Your task to perform on an android device: Go to Google maps Image 0: 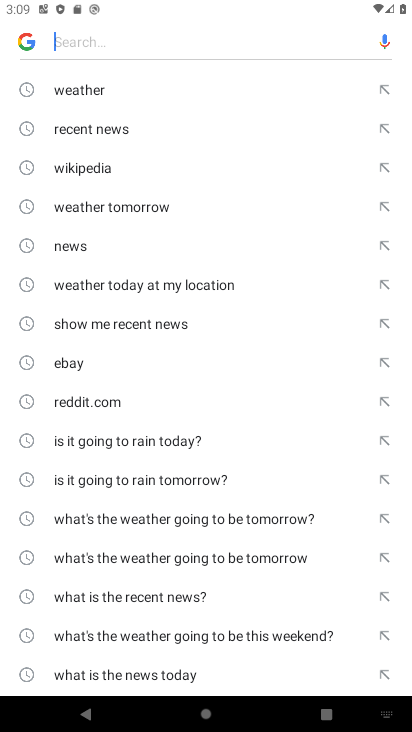
Step 0: press home button
Your task to perform on an android device: Go to Google maps Image 1: 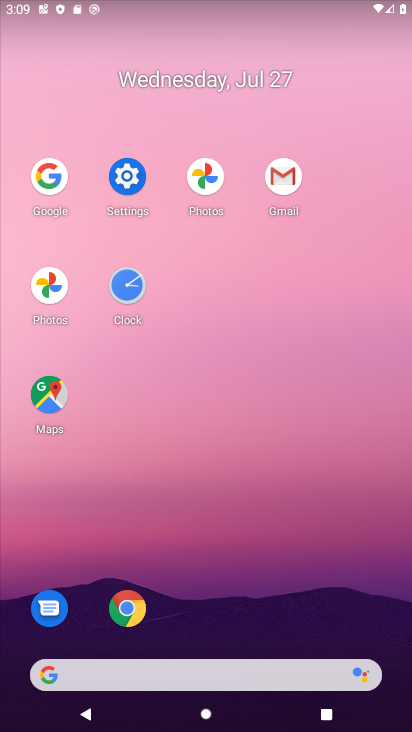
Step 1: click (52, 390)
Your task to perform on an android device: Go to Google maps Image 2: 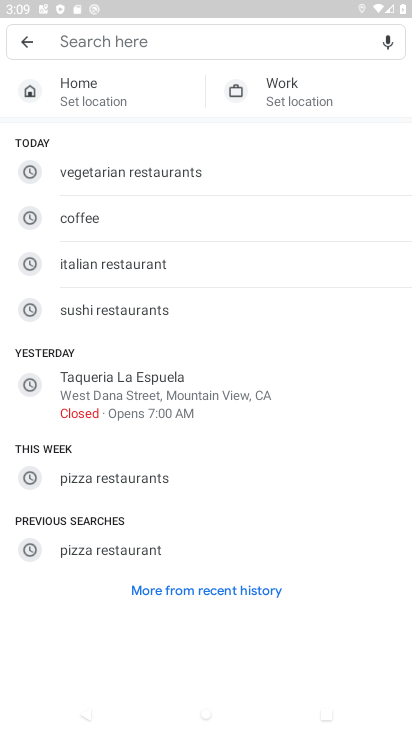
Step 2: task complete